Your task to perform on an android device: Open notification settings Image 0: 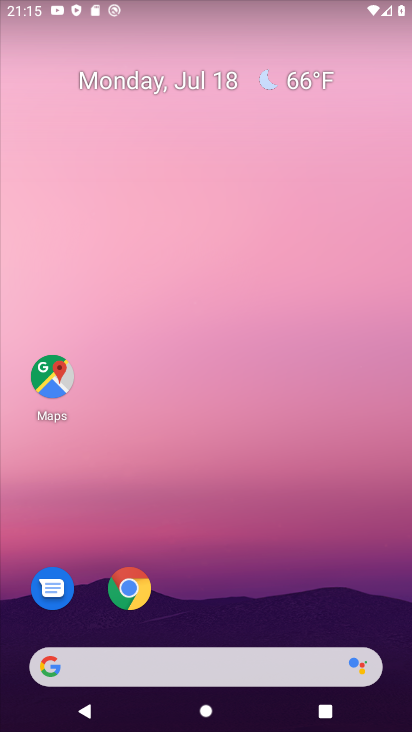
Step 0: press home button
Your task to perform on an android device: Open notification settings Image 1: 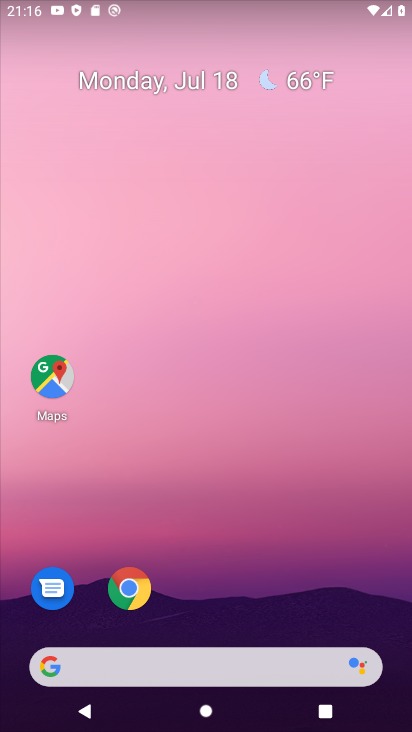
Step 1: drag from (288, 618) to (268, 123)
Your task to perform on an android device: Open notification settings Image 2: 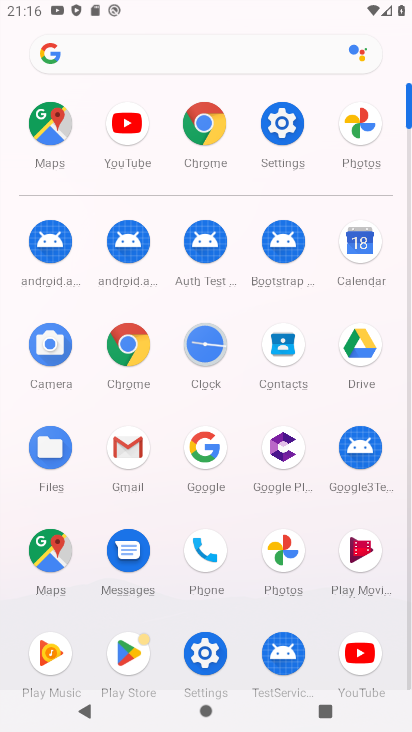
Step 2: click (216, 662)
Your task to perform on an android device: Open notification settings Image 3: 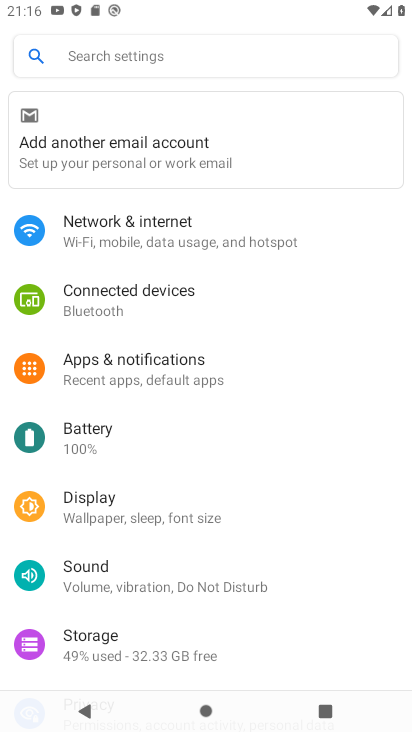
Step 3: click (191, 362)
Your task to perform on an android device: Open notification settings Image 4: 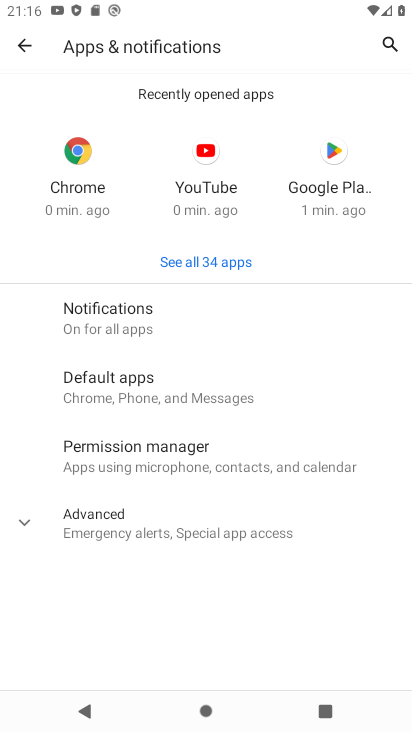
Step 4: click (101, 306)
Your task to perform on an android device: Open notification settings Image 5: 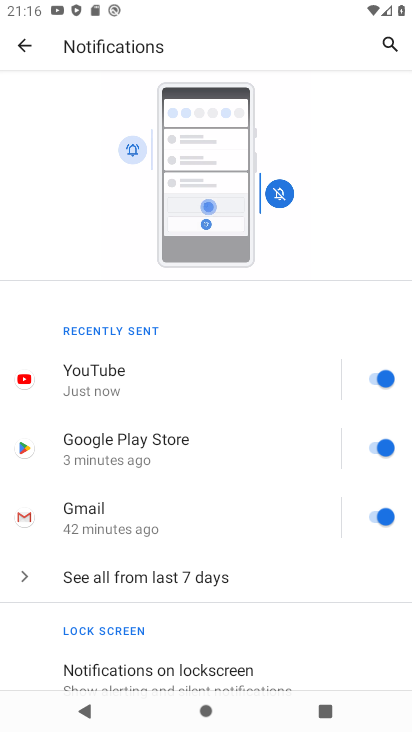
Step 5: task complete